Your task to perform on an android device: set the stopwatch Image 0: 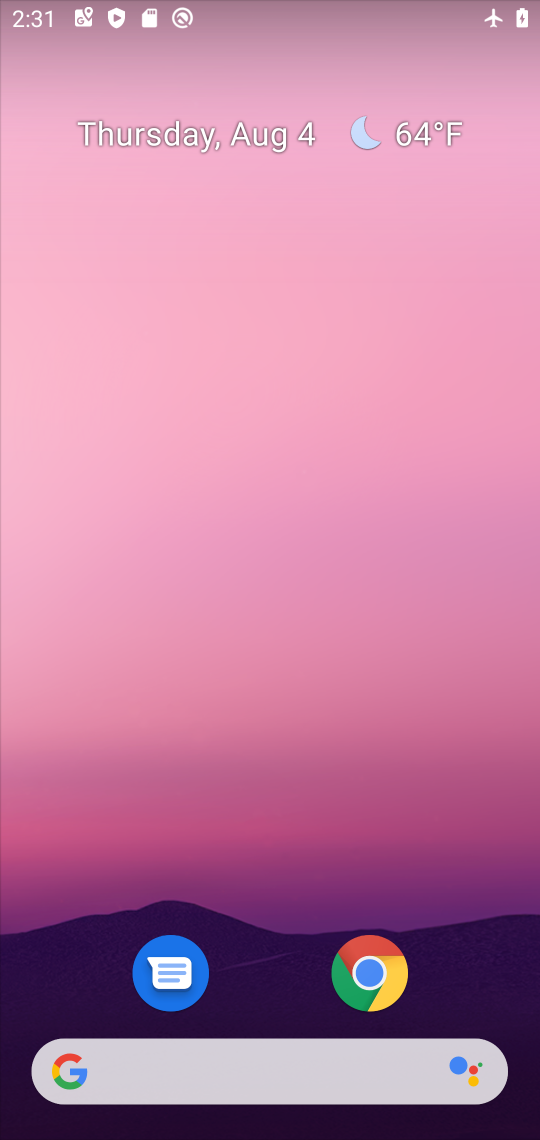
Step 0: drag from (272, 1013) to (308, 7)
Your task to perform on an android device: set the stopwatch Image 1: 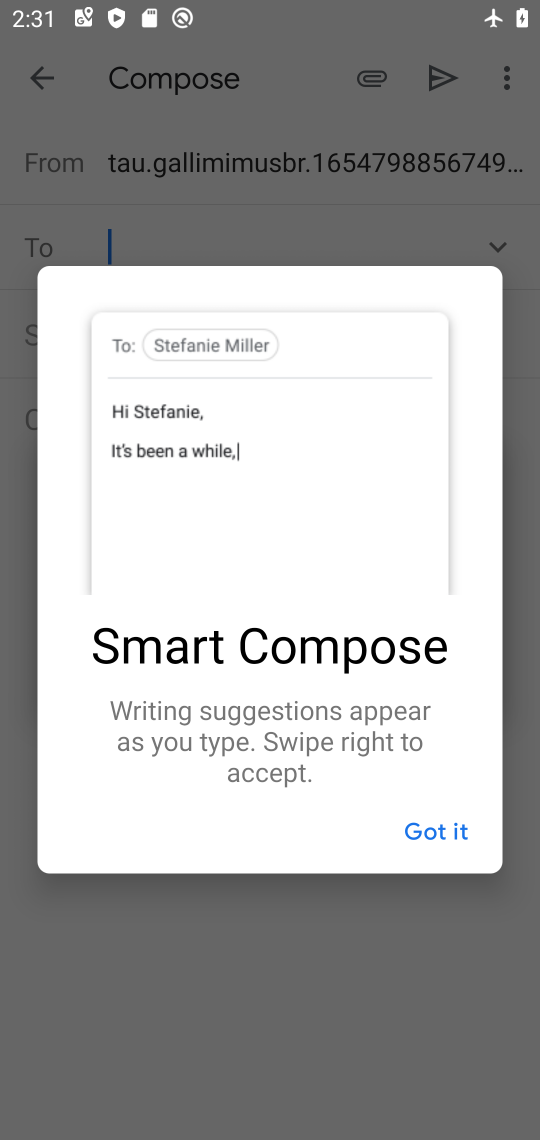
Step 1: click (436, 842)
Your task to perform on an android device: set the stopwatch Image 2: 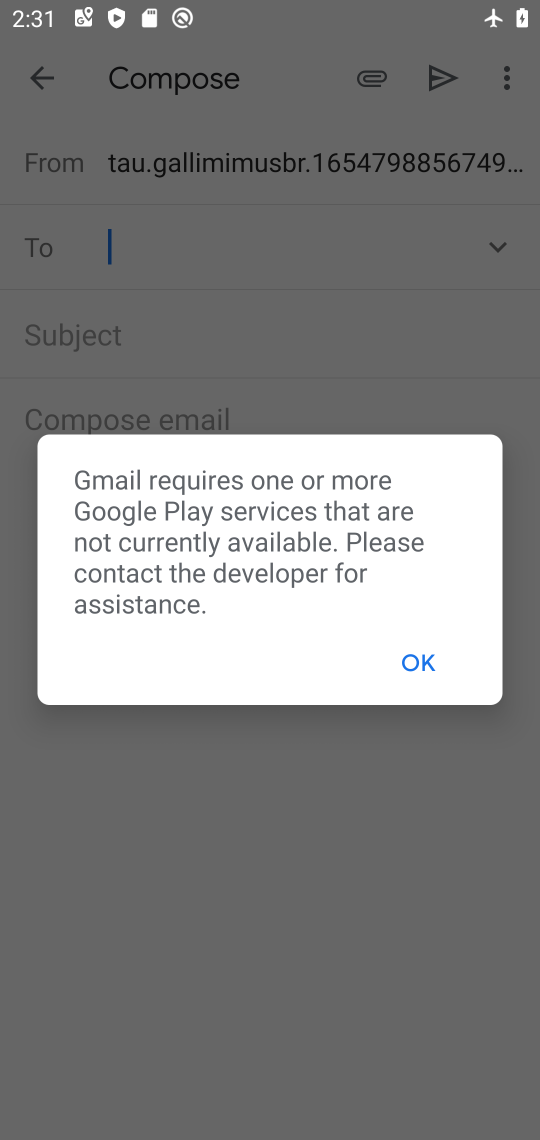
Step 2: press home button
Your task to perform on an android device: set the stopwatch Image 3: 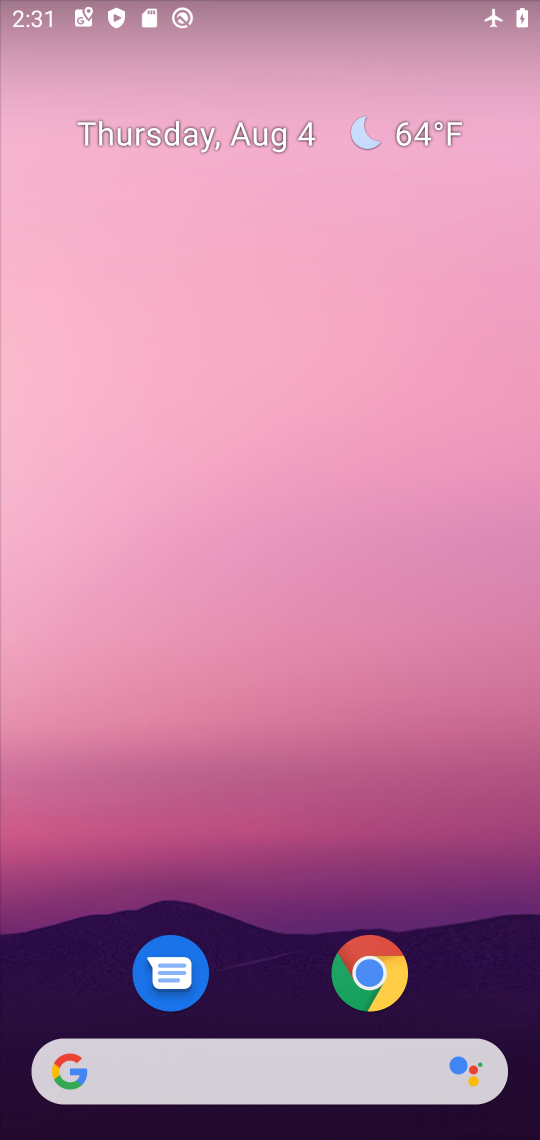
Step 3: drag from (298, 1006) to (213, 38)
Your task to perform on an android device: set the stopwatch Image 4: 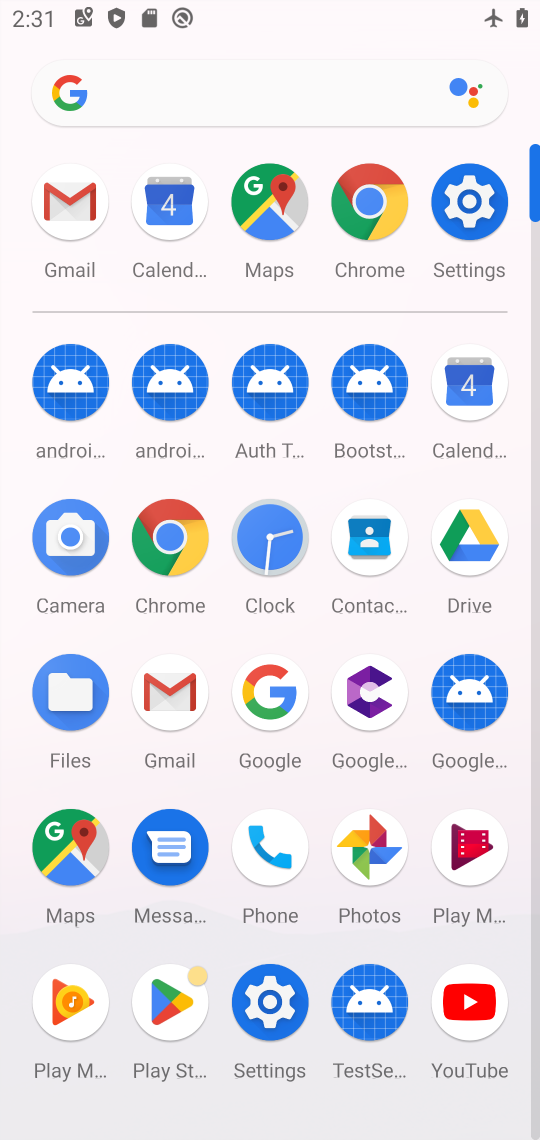
Step 4: click (273, 545)
Your task to perform on an android device: set the stopwatch Image 5: 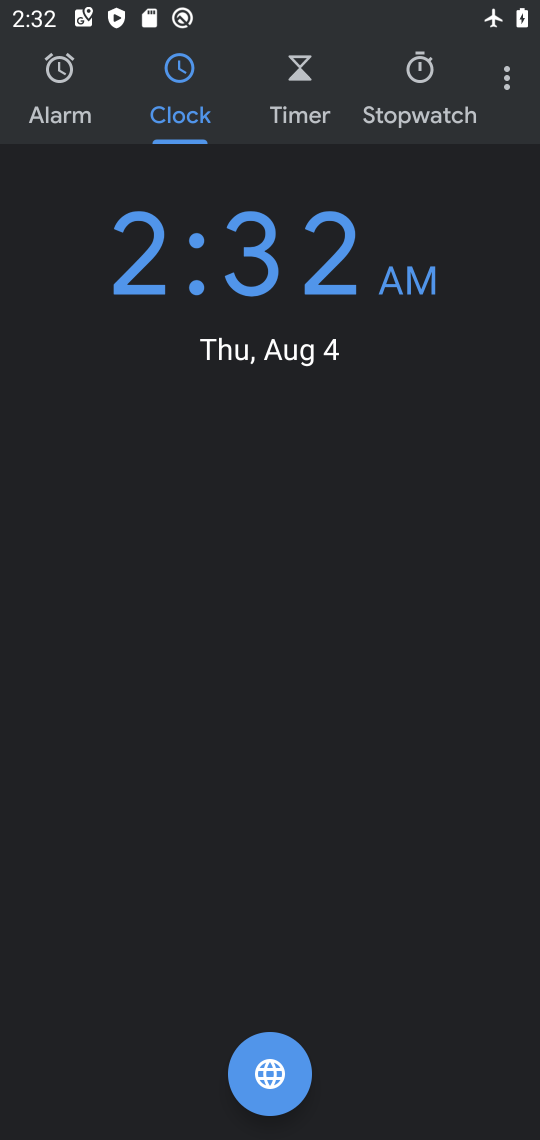
Step 5: click (390, 87)
Your task to perform on an android device: set the stopwatch Image 6: 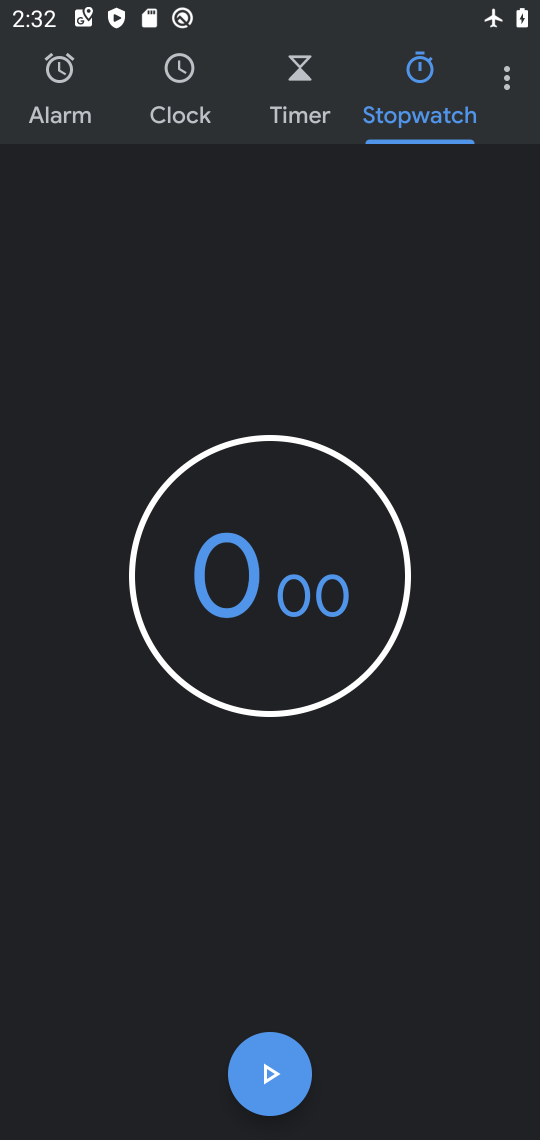
Step 6: task complete